Your task to perform on an android device: turn notification dots on Image 0: 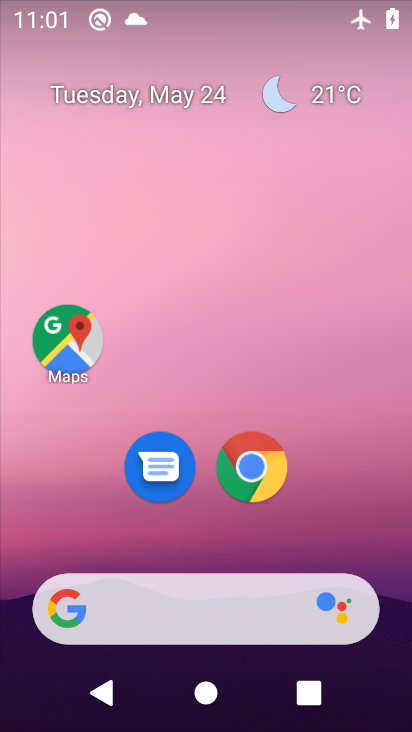
Step 0: click (374, 374)
Your task to perform on an android device: turn notification dots on Image 1: 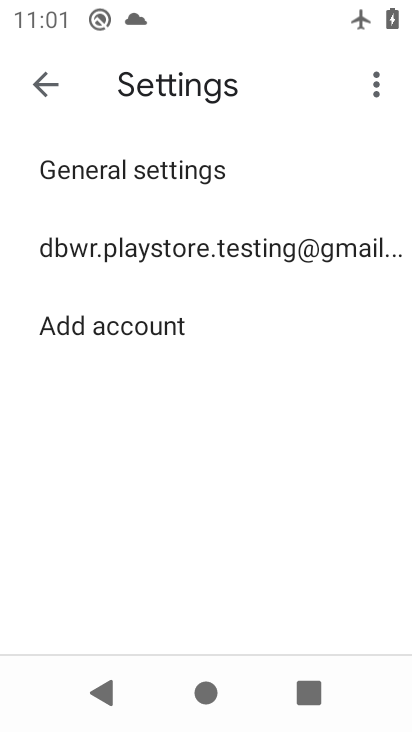
Step 1: drag from (200, 544) to (317, 325)
Your task to perform on an android device: turn notification dots on Image 2: 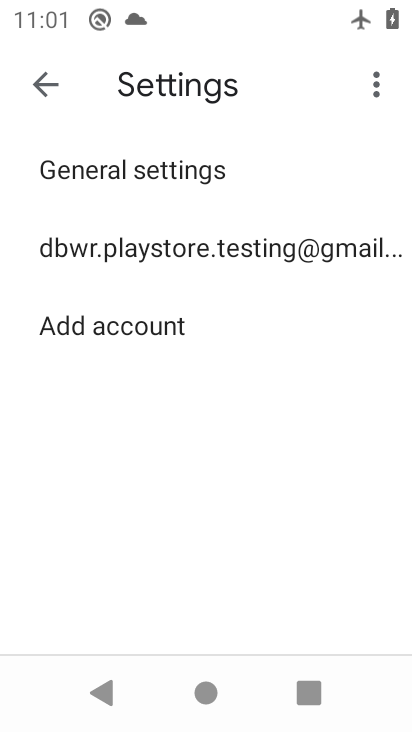
Step 2: press home button
Your task to perform on an android device: turn notification dots on Image 3: 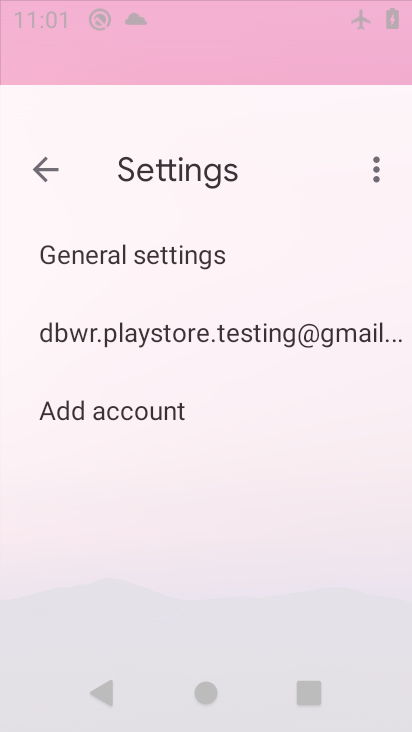
Step 3: drag from (241, 474) to (267, 12)
Your task to perform on an android device: turn notification dots on Image 4: 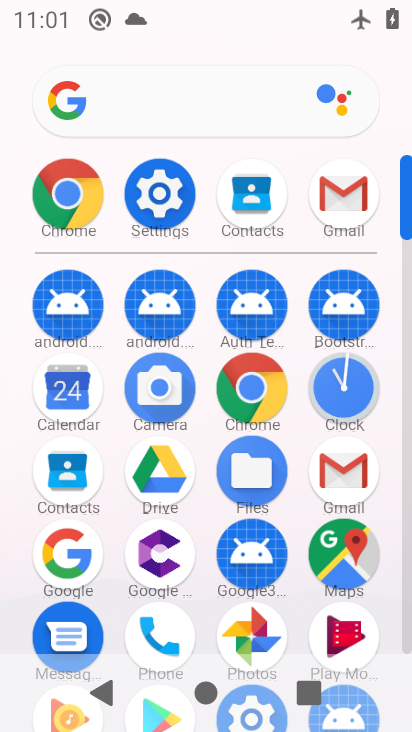
Step 4: click (147, 207)
Your task to perform on an android device: turn notification dots on Image 5: 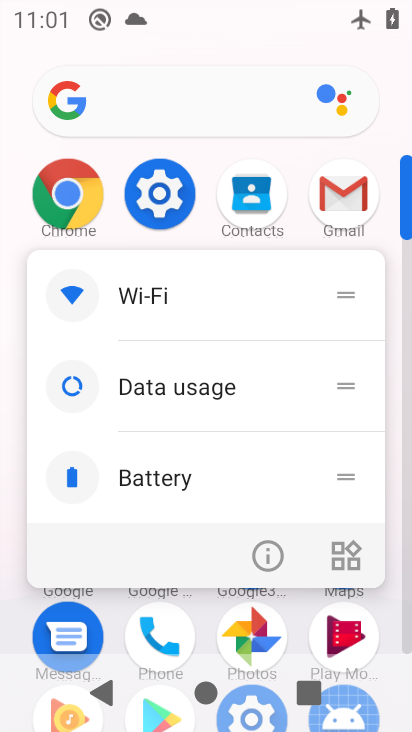
Step 5: click (265, 542)
Your task to perform on an android device: turn notification dots on Image 6: 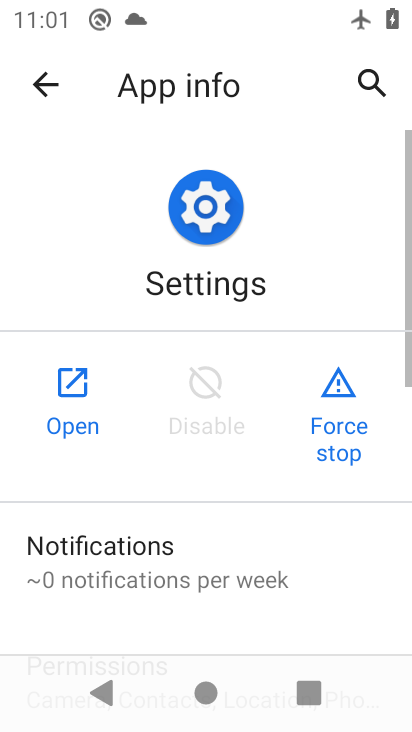
Step 6: click (102, 400)
Your task to perform on an android device: turn notification dots on Image 7: 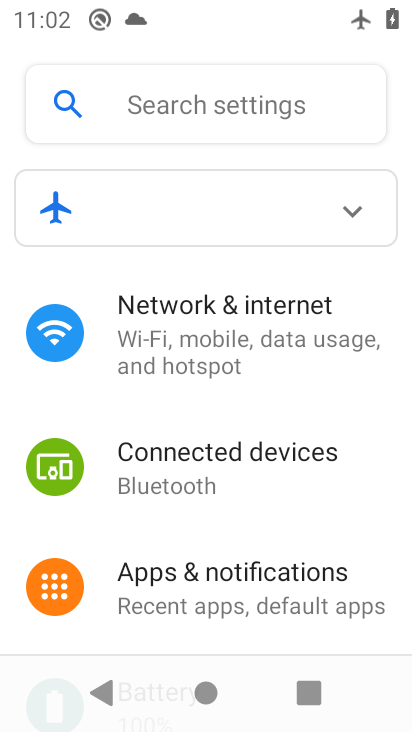
Step 7: click (210, 581)
Your task to perform on an android device: turn notification dots on Image 8: 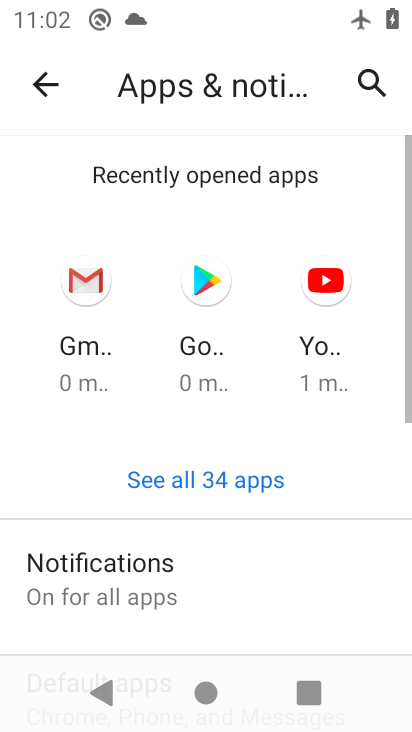
Step 8: drag from (188, 612) to (299, 155)
Your task to perform on an android device: turn notification dots on Image 9: 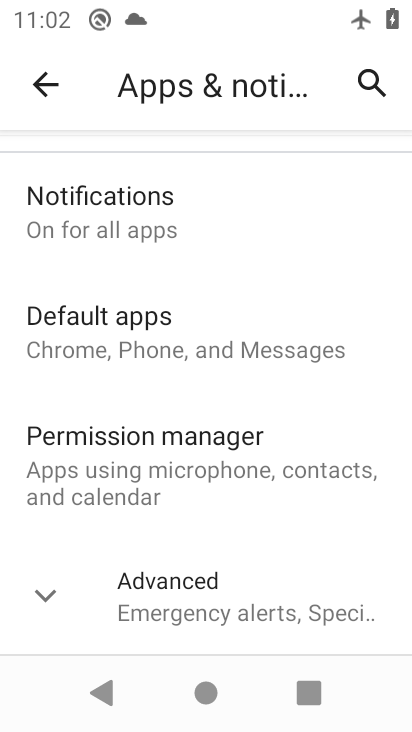
Step 9: click (155, 234)
Your task to perform on an android device: turn notification dots on Image 10: 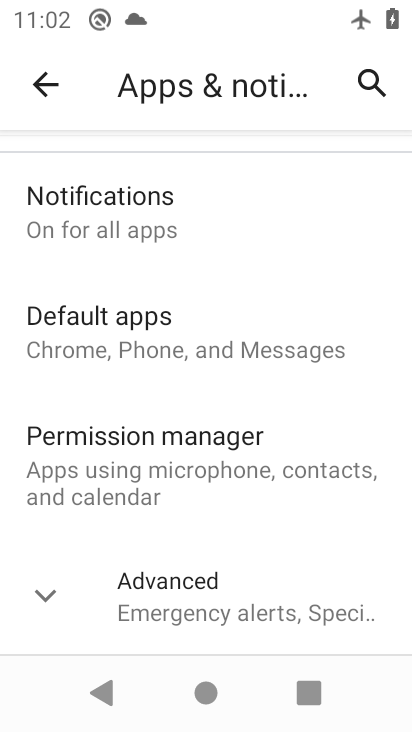
Step 10: click (156, 233)
Your task to perform on an android device: turn notification dots on Image 11: 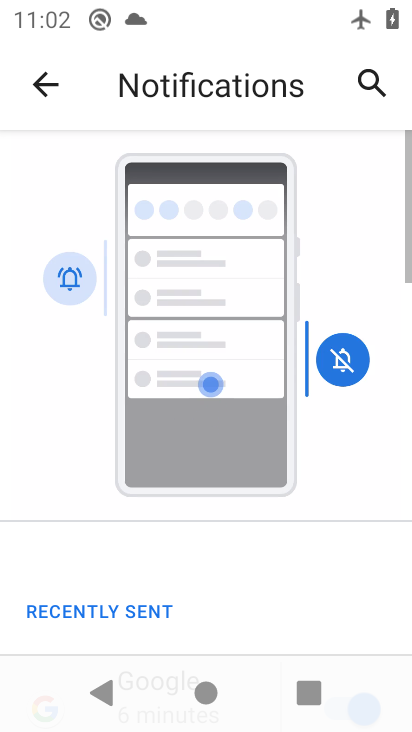
Step 11: drag from (229, 596) to (282, 200)
Your task to perform on an android device: turn notification dots on Image 12: 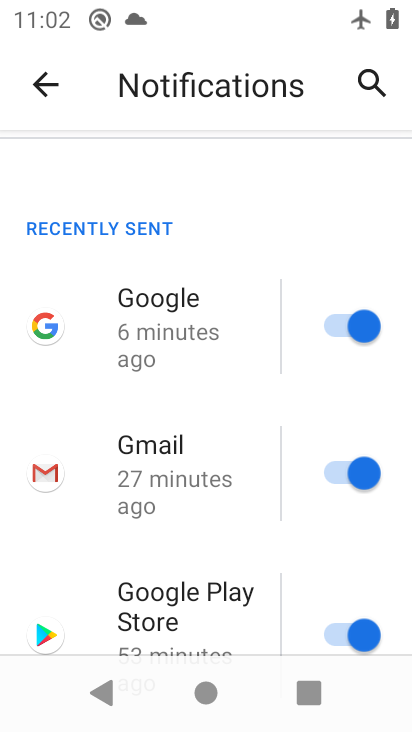
Step 12: drag from (221, 464) to (274, 178)
Your task to perform on an android device: turn notification dots on Image 13: 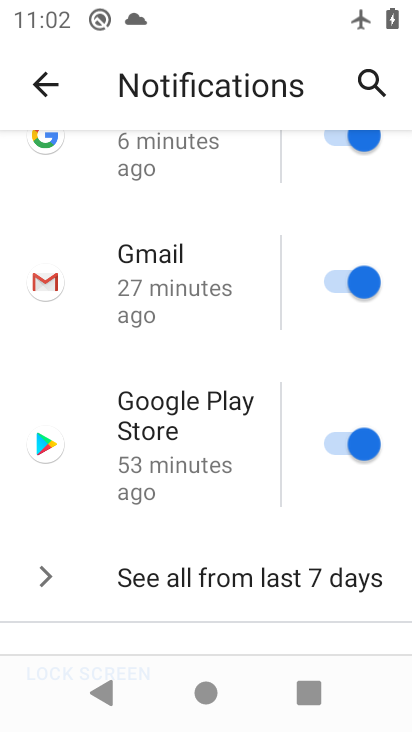
Step 13: drag from (230, 459) to (270, 125)
Your task to perform on an android device: turn notification dots on Image 14: 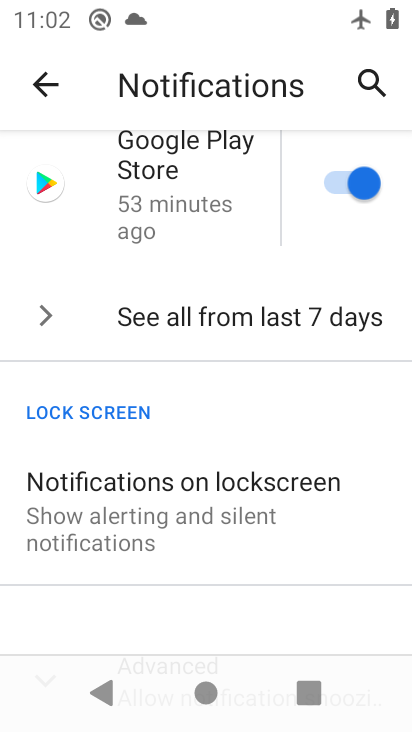
Step 14: drag from (206, 573) to (251, 241)
Your task to perform on an android device: turn notification dots on Image 15: 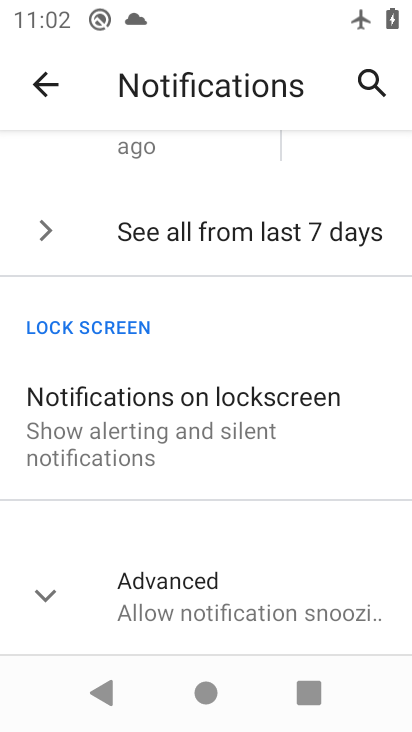
Step 15: click (204, 593)
Your task to perform on an android device: turn notification dots on Image 16: 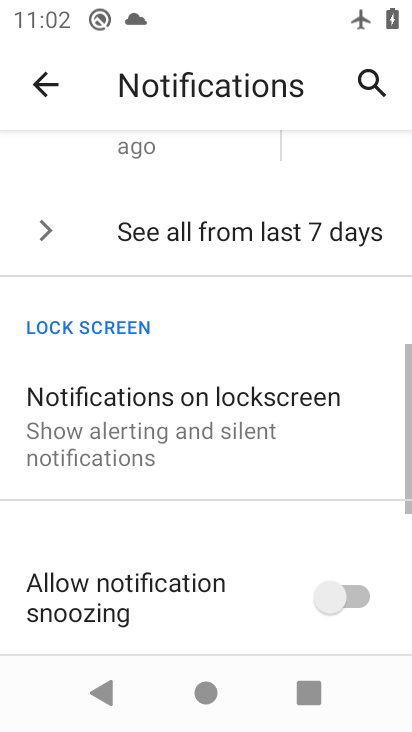
Step 16: drag from (207, 562) to (259, 130)
Your task to perform on an android device: turn notification dots on Image 17: 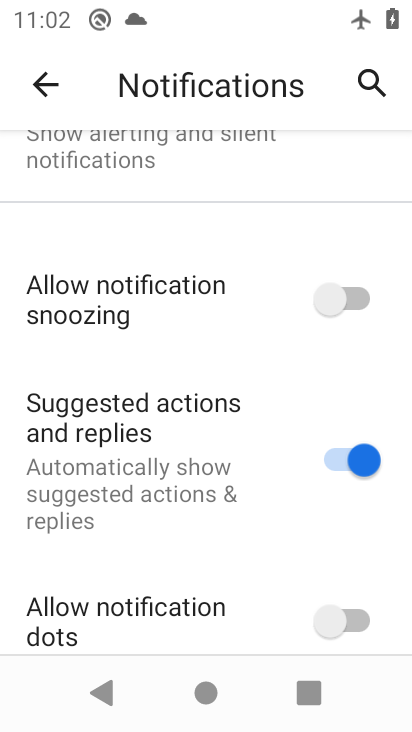
Step 17: click (316, 619)
Your task to perform on an android device: turn notification dots on Image 18: 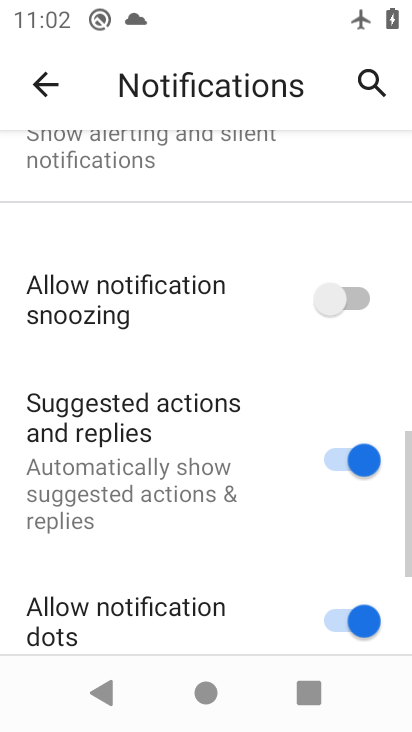
Step 18: task complete